Your task to perform on an android device: What's the weather? Image 0: 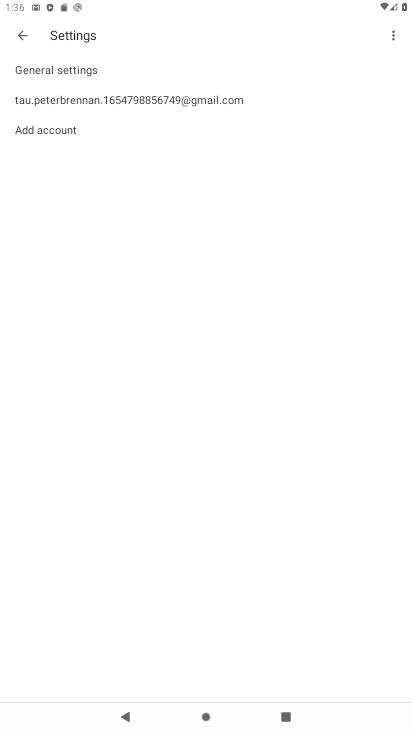
Step 0: press home button
Your task to perform on an android device: What's the weather? Image 1: 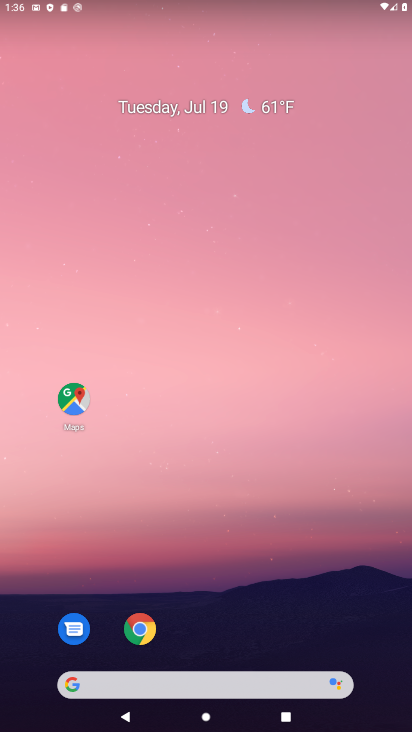
Step 1: drag from (5, 280) to (397, 297)
Your task to perform on an android device: What's the weather? Image 2: 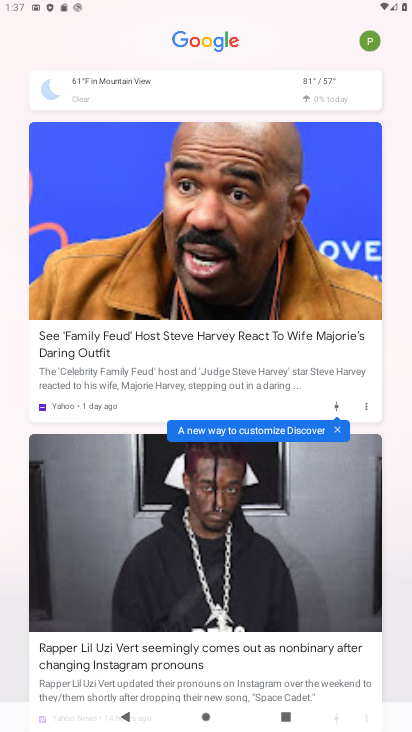
Step 2: click (317, 79)
Your task to perform on an android device: What's the weather? Image 3: 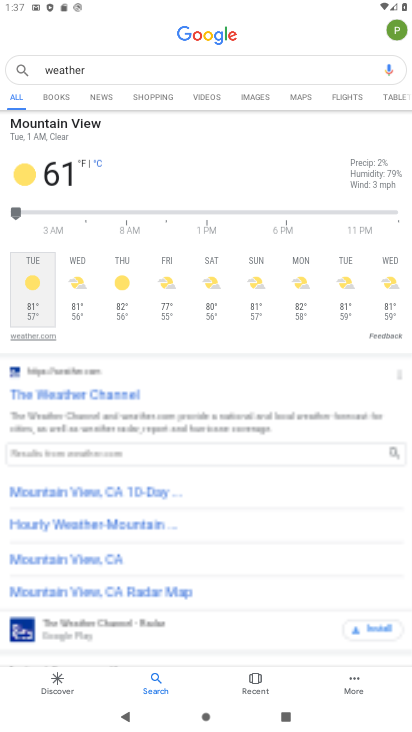
Step 3: task complete